Your task to perform on an android device: Show the shopping cart on walmart. Add "acer predator" to the cart on walmart, then select checkout. Image 0: 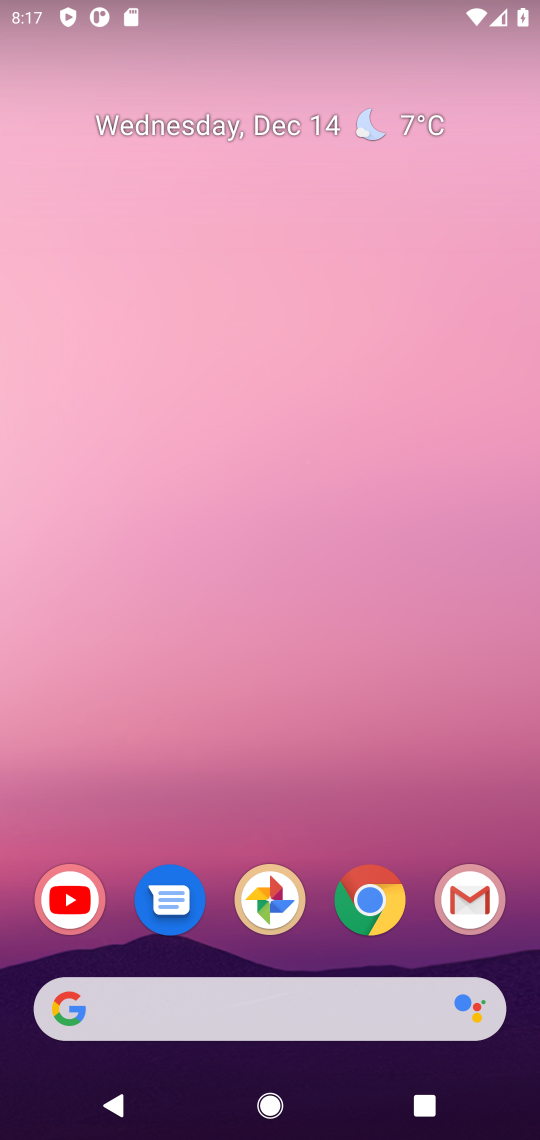
Step 0: click (249, 1020)
Your task to perform on an android device: Show the shopping cart on walmart. Add "acer predator" to the cart on walmart, then select checkout. Image 1: 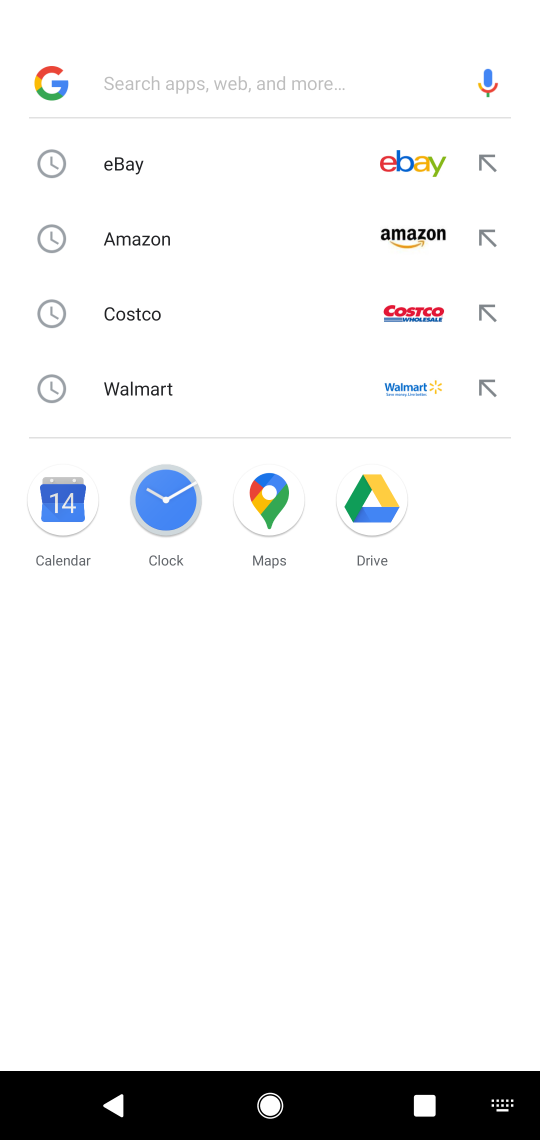
Step 1: click (183, 418)
Your task to perform on an android device: Show the shopping cart on walmart. Add "acer predator" to the cart on walmart, then select checkout. Image 2: 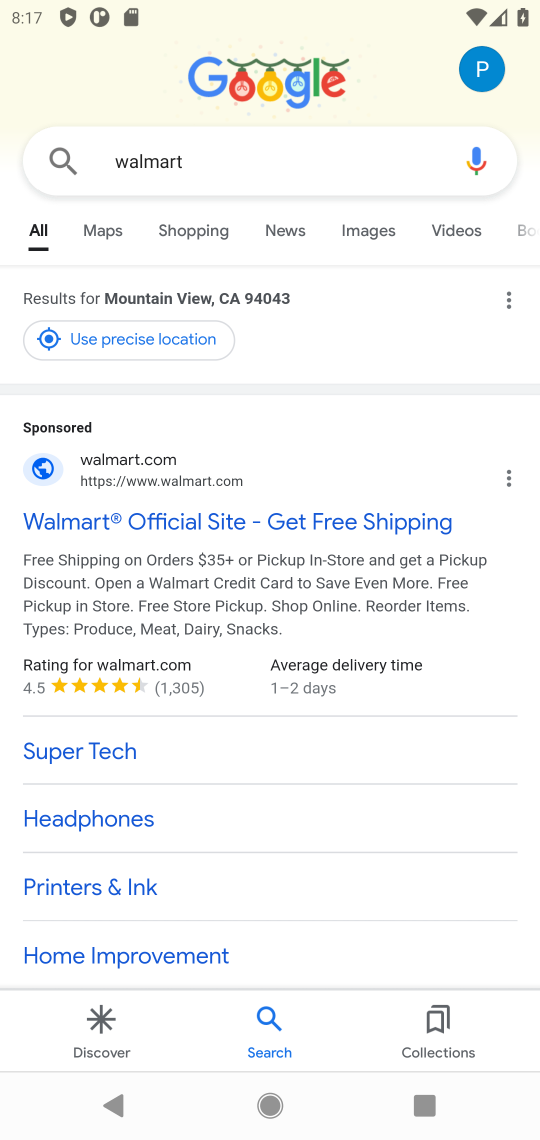
Step 2: drag from (177, 952) to (160, 628)
Your task to perform on an android device: Show the shopping cart on walmart. Add "acer predator" to the cart on walmart, then select checkout. Image 3: 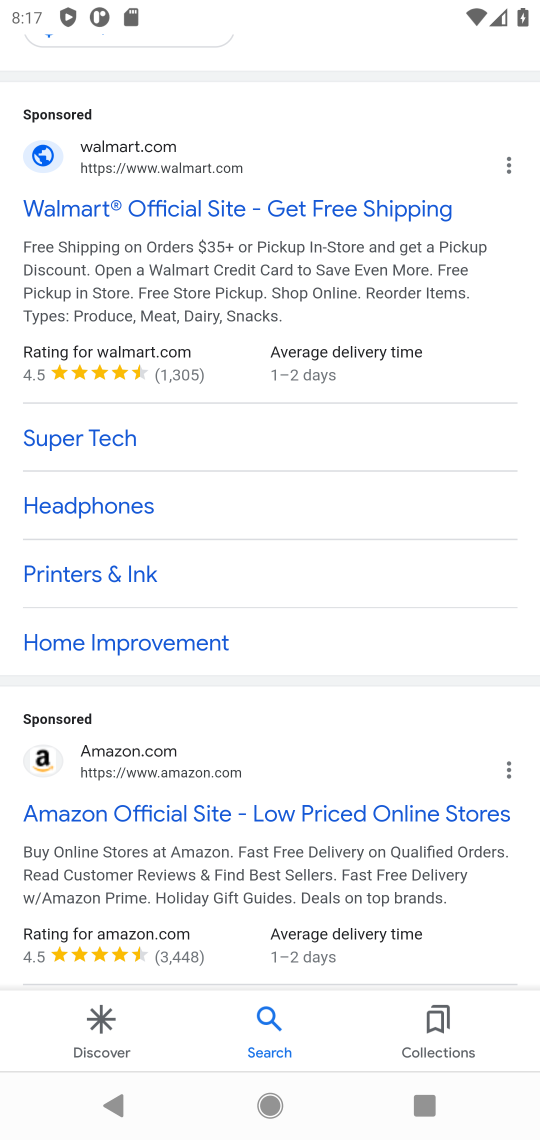
Step 3: click (122, 809)
Your task to perform on an android device: Show the shopping cart on walmart. Add "acer predator" to the cart on walmart, then select checkout. Image 4: 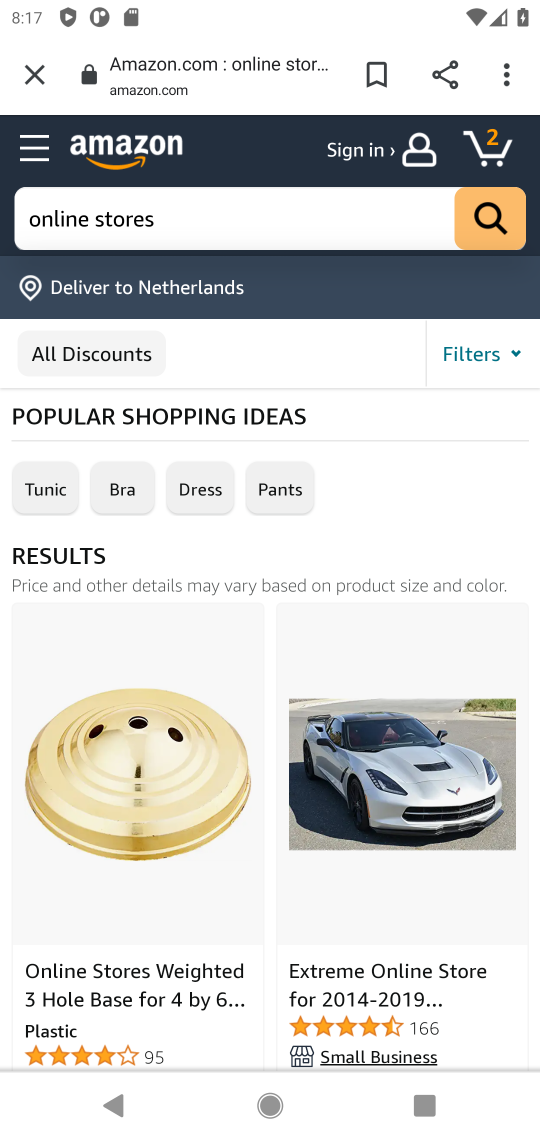
Step 4: click (499, 152)
Your task to perform on an android device: Show the shopping cart on walmart. Add "acer predator" to the cart on walmart, then select checkout. Image 5: 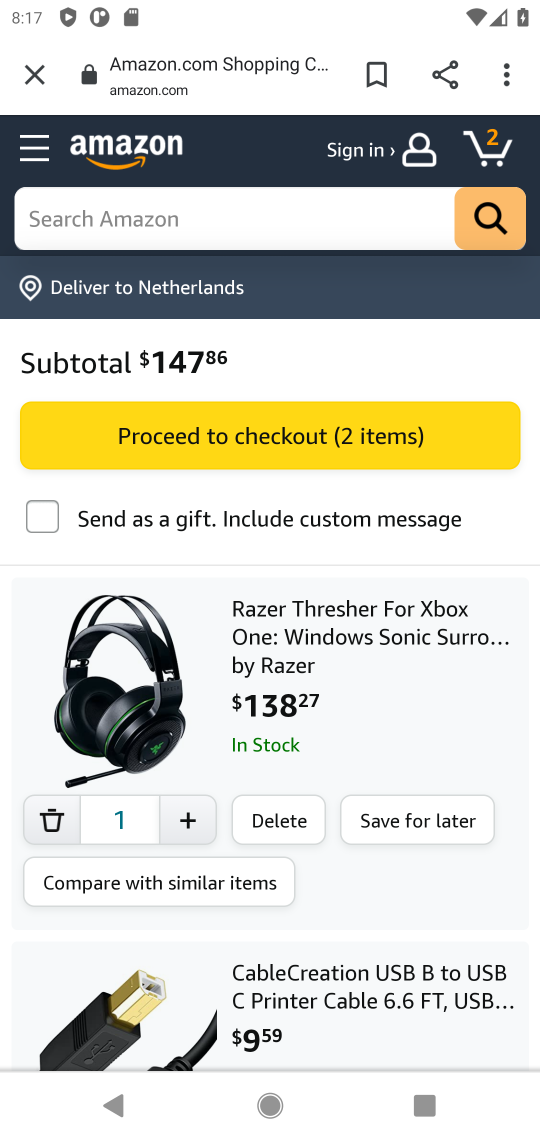
Step 5: click (181, 220)
Your task to perform on an android device: Show the shopping cart on walmart. Add "acer predator" to the cart on walmart, then select checkout. Image 6: 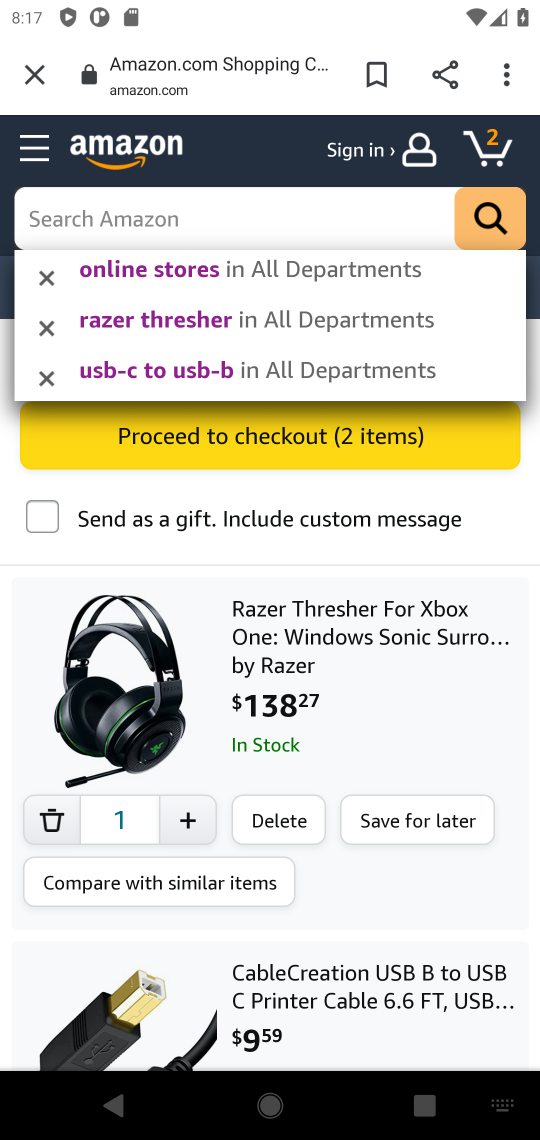
Step 6: type "acer predator"
Your task to perform on an android device: Show the shopping cart on walmart. Add "acer predator" to the cart on walmart, then select checkout. Image 7: 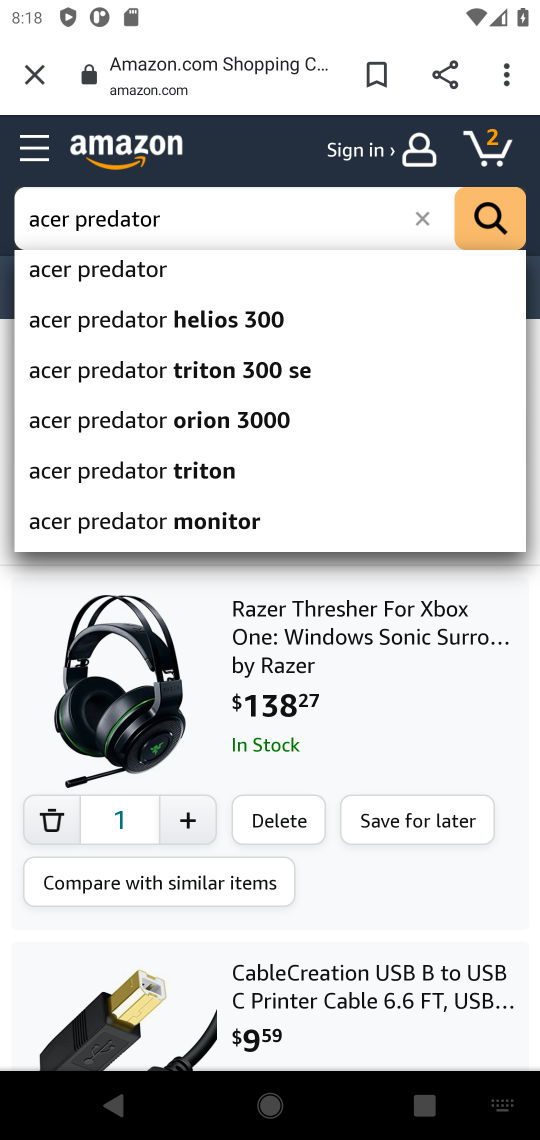
Step 7: click (142, 263)
Your task to perform on an android device: Show the shopping cart on walmart. Add "acer predator" to the cart on walmart, then select checkout. Image 8: 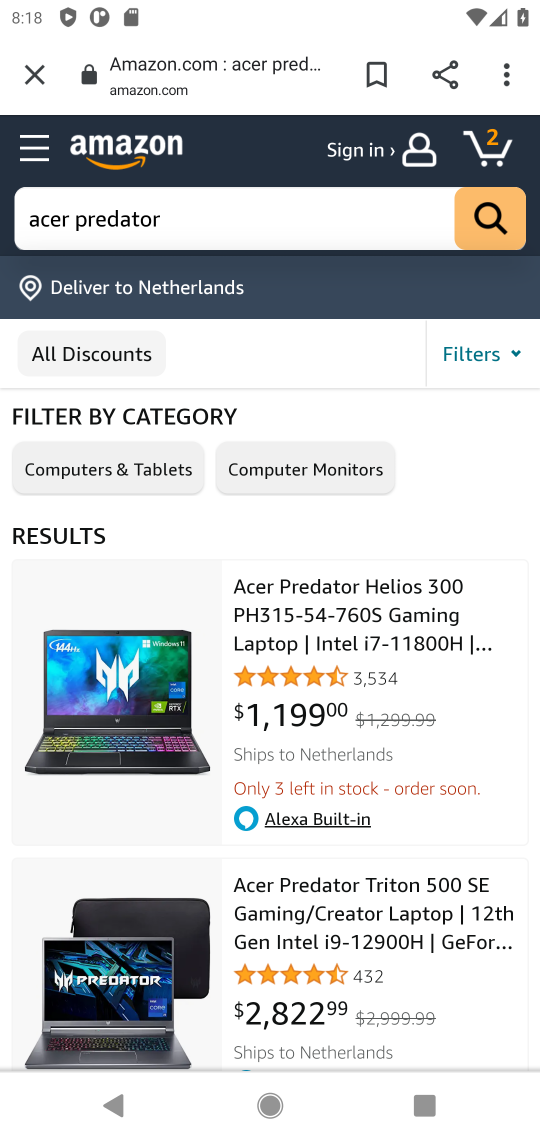
Step 8: click (273, 666)
Your task to perform on an android device: Show the shopping cart on walmart. Add "acer predator" to the cart on walmart, then select checkout. Image 9: 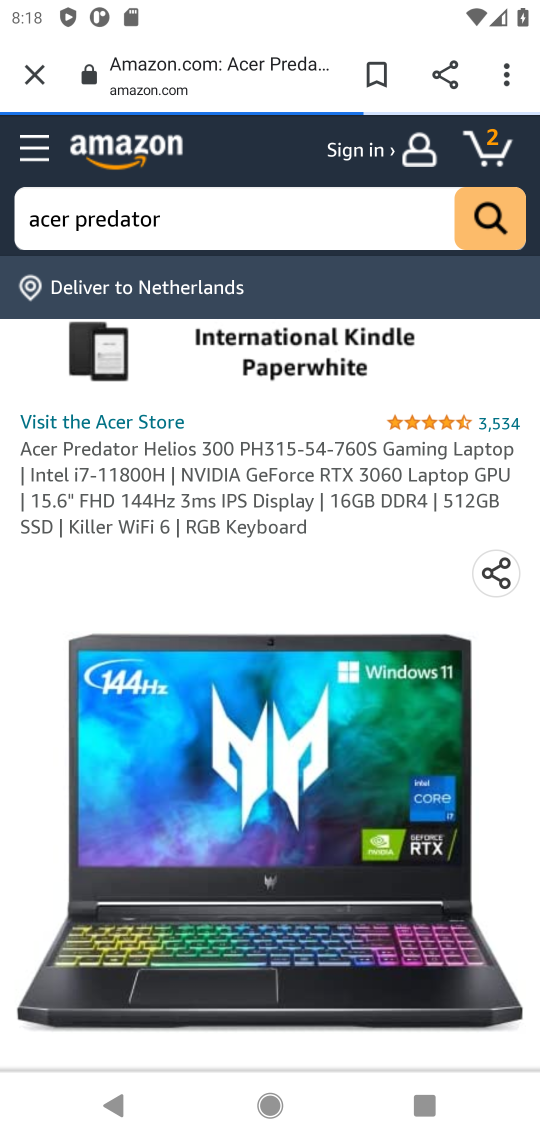
Step 9: drag from (333, 875) to (235, 254)
Your task to perform on an android device: Show the shopping cart on walmart. Add "acer predator" to the cart on walmart, then select checkout. Image 10: 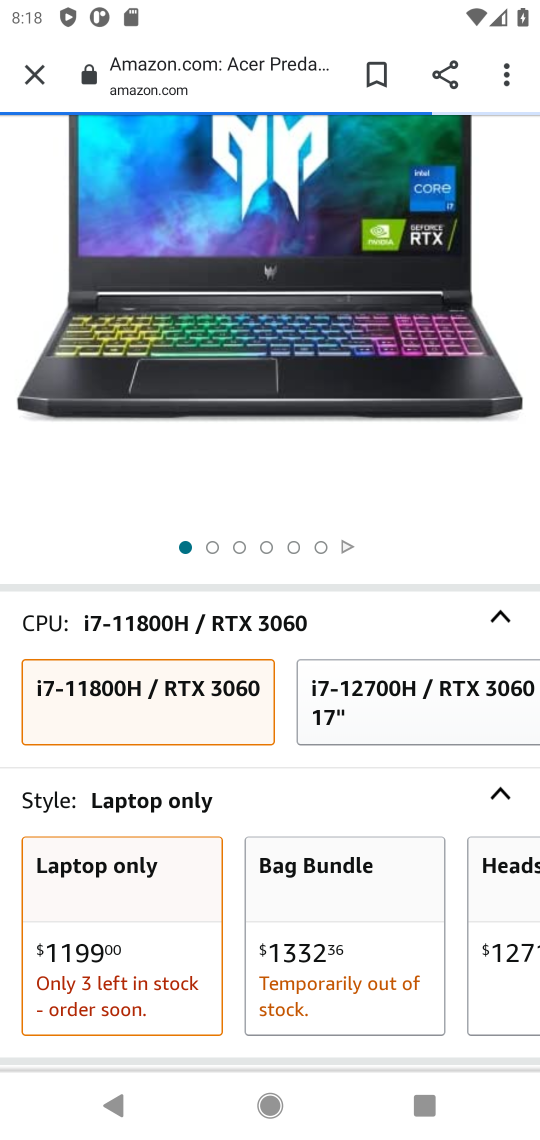
Step 10: drag from (250, 909) to (121, 134)
Your task to perform on an android device: Show the shopping cart on walmart. Add "acer predator" to the cart on walmart, then select checkout. Image 11: 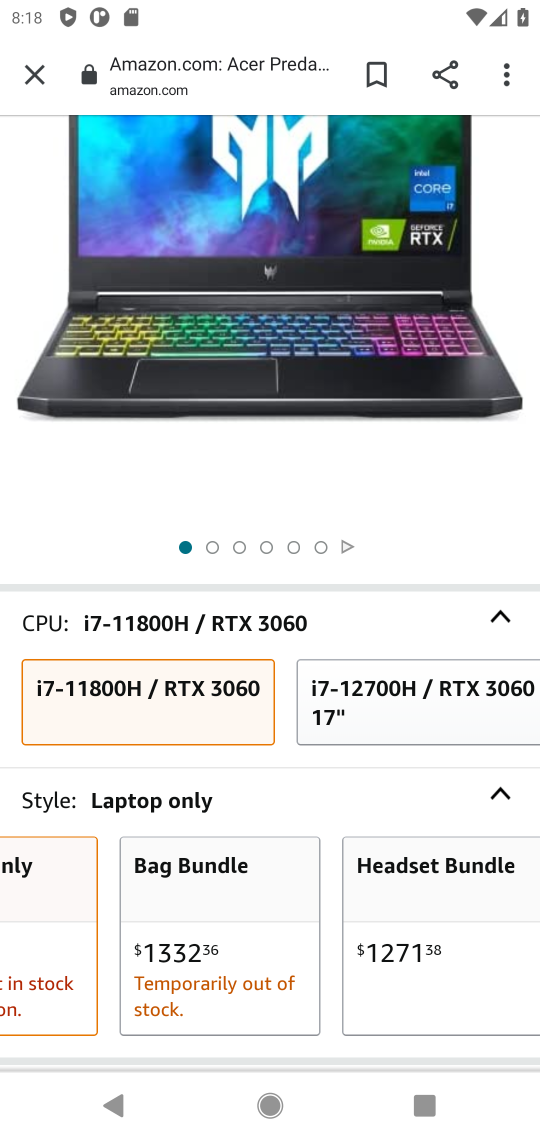
Step 11: drag from (322, 1027) to (261, 440)
Your task to perform on an android device: Show the shopping cart on walmart. Add "acer predator" to the cart on walmart, then select checkout. Image 12: 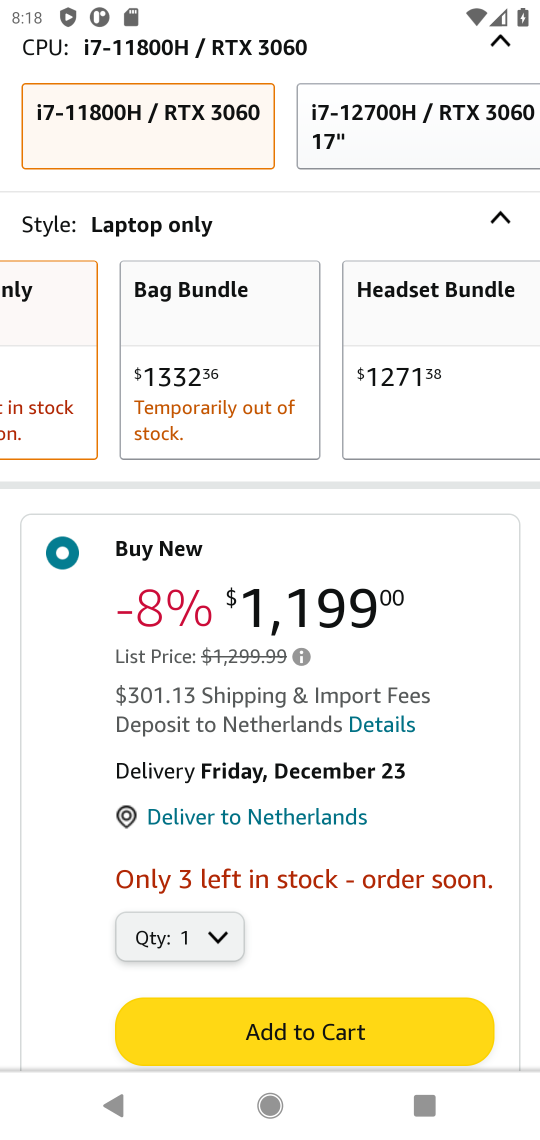
Step 12: click (270, 1048)
Your task to perform on an android device: Show the shopping cart on walmart. Add "acer predator" to the cart on walmart, then select checkout. Image 13: 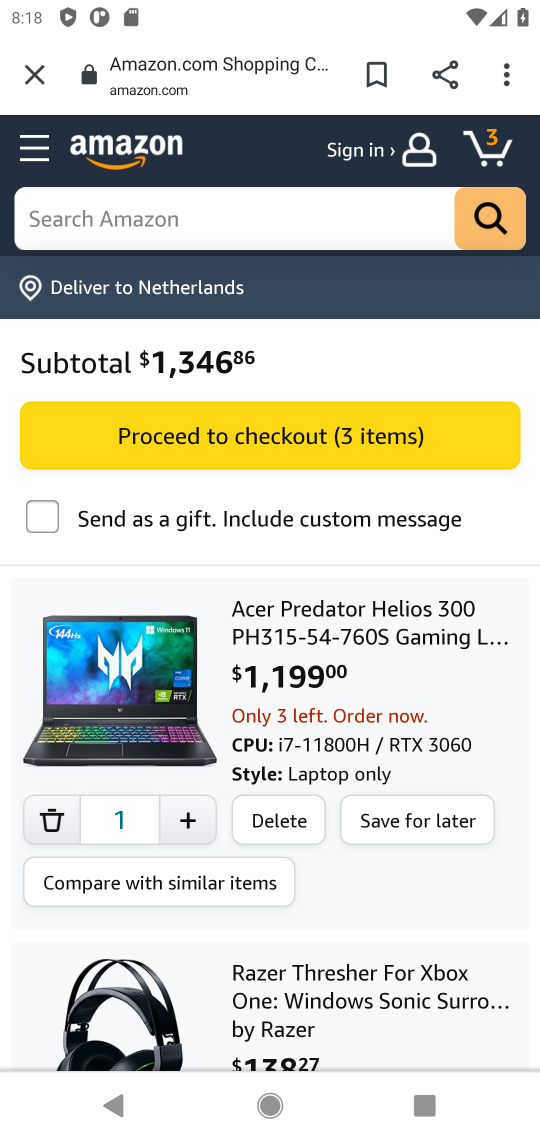
Step 13: click (496, 161)
Your task to perform on an android device: Show the shopping cart on walmart. Add "acer predator" to the cart on walmart, then select checkout. Image 14: 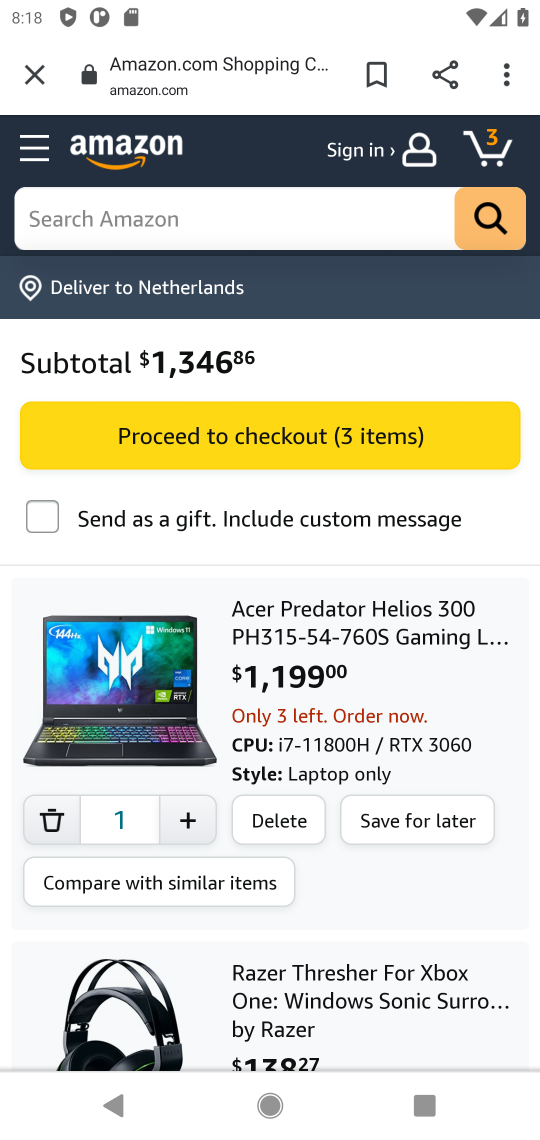
Step 14: click (227, 427)
Your task to perform on an android device: Show the shopping cart on walmart. Add "acer predator" to the cart on walmart, then select checkout. Image 15: 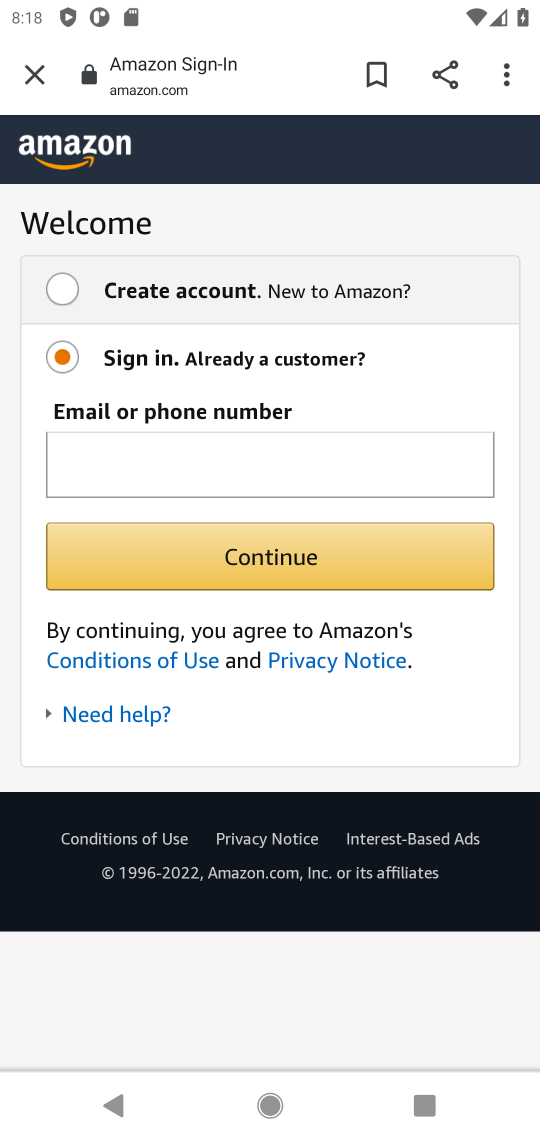
Step 15: task complete